Your task to perform on an android device: Open the calendar app, open the side menu, and click the "Day" option Image 0: 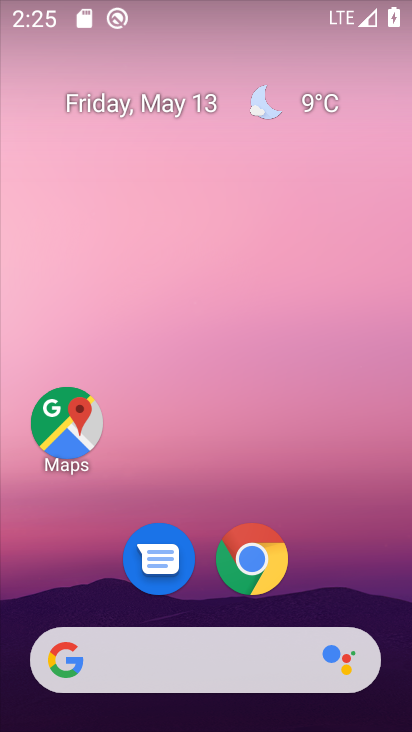
Step 0: drag from (402, 607) to (358, 356)
Your task to perform on an android device: Open the calendar app, open the side menu, and click the "Day" option Image 1: 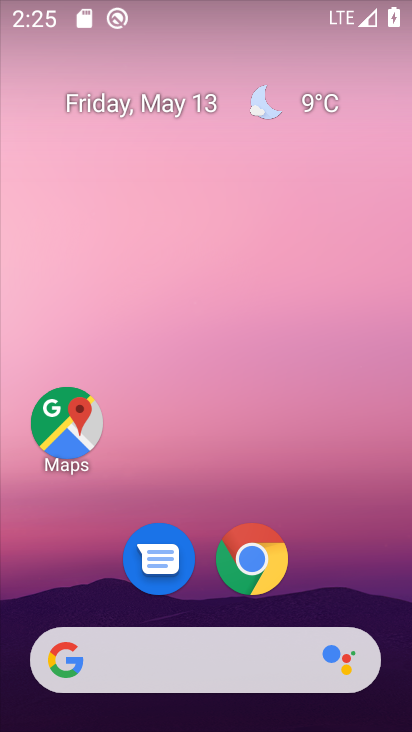
Step 1: drag from (388, 600) to (377, 368)
Your task to perform on an android device: Open the calendar app, open the side menu, and click the "Day" option Image 2: 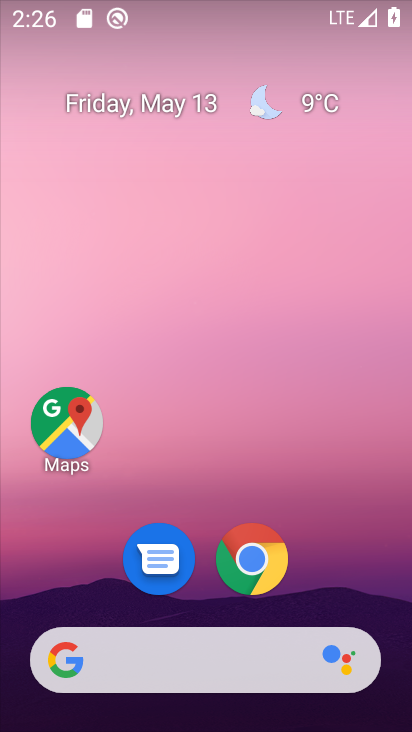
Step 2: drag from (387, 551) to (363, 404)
Your task to perform on an android device: Open the calendar app, open the side menu, and click the "Day" option Image 3: 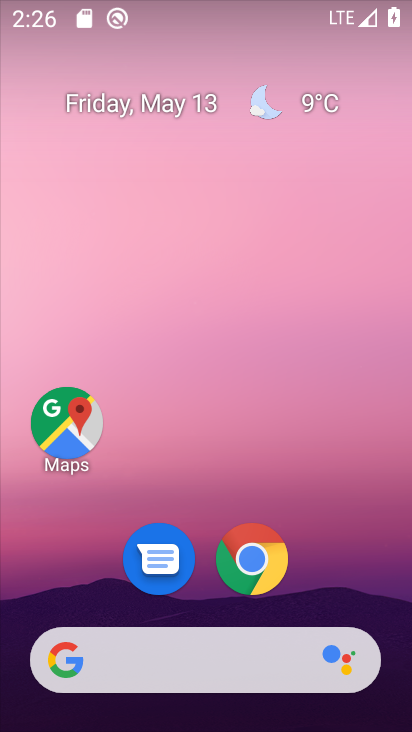
Step 3: click (319, 97)
Your task to perform on an android device: Open the calendar app, open the side menu, and click the "Day" option Image 4: 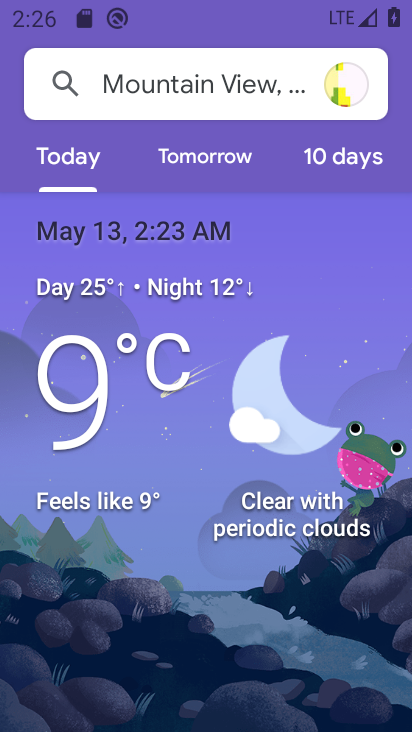
Step 4: press back button
Your task to perform on an android device: Open the calendar app, open the side menu, and click the "Day" option Image 5: 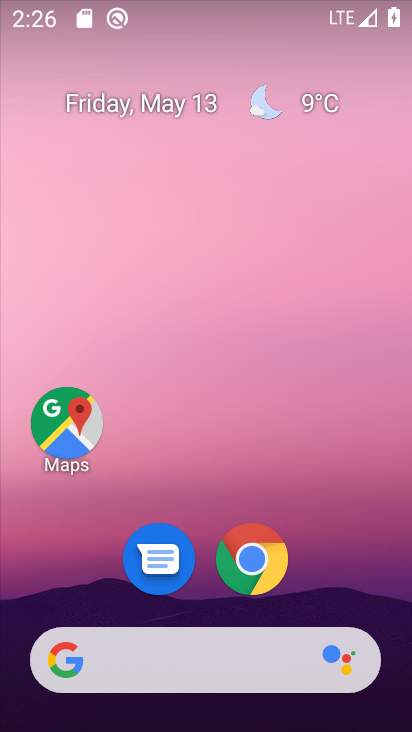
Step 5: drag from (397, 598) to (377, 388)
Your task to perform on an android device: Open the calendar app, open the side menu, and click the "Day" option Image 6: 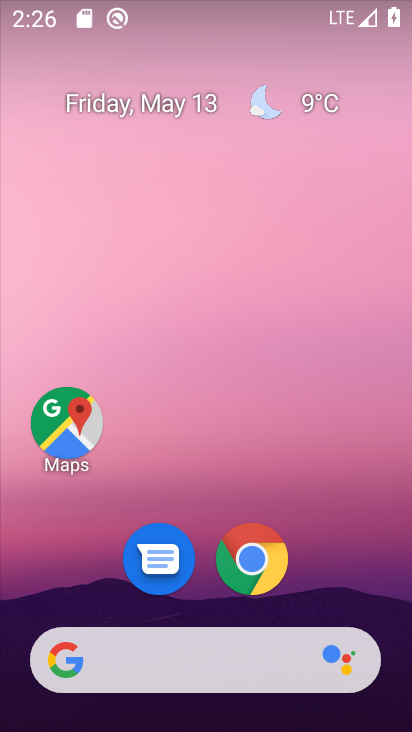
Step 6: drag from (398, 660) to (335, 325)
Your task to perform on an android device: Open the calendar app, open the side menu, and click the "Day" option Image 7: 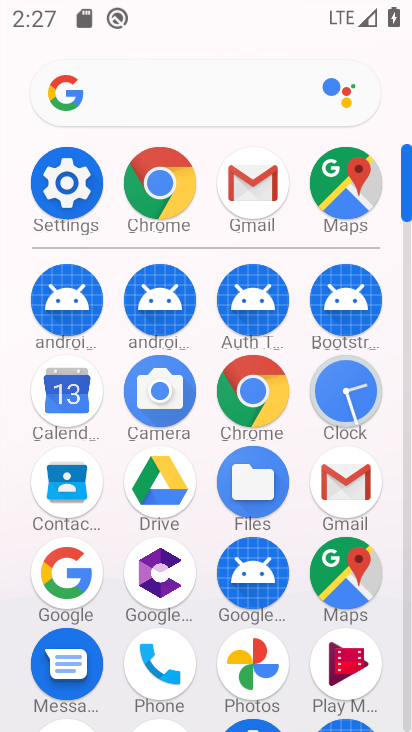
Step 7: click (67, 401)
Your task to perform on an android device: Open the calendar app, open the side menu, and click the "Day" option Image 8: 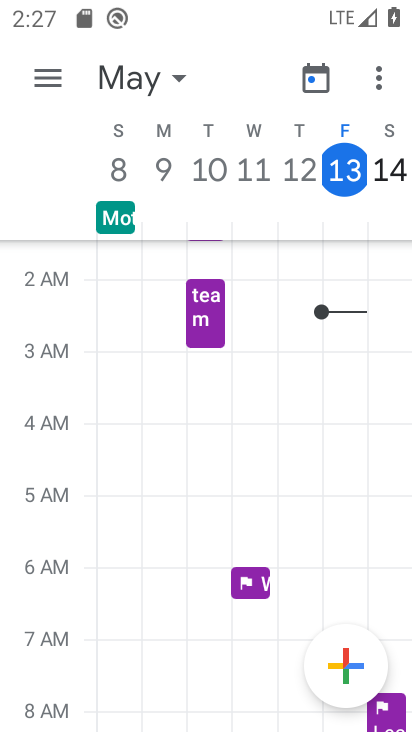
Step 8: click (45, 71)
Your task to perform on an android device: Open the calendar app, open the side menu, and click the "Day" option Image 9: 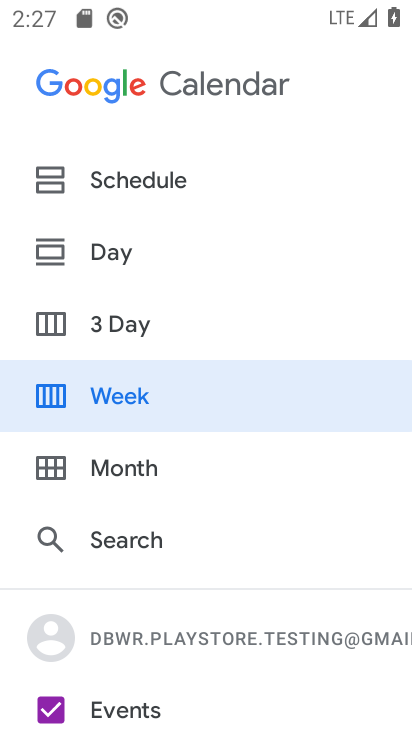
Step 9: click (95, 259)
Your task to perform on an android device: Open the calendar app, open the side menu, and click the "Day" option Image 10: 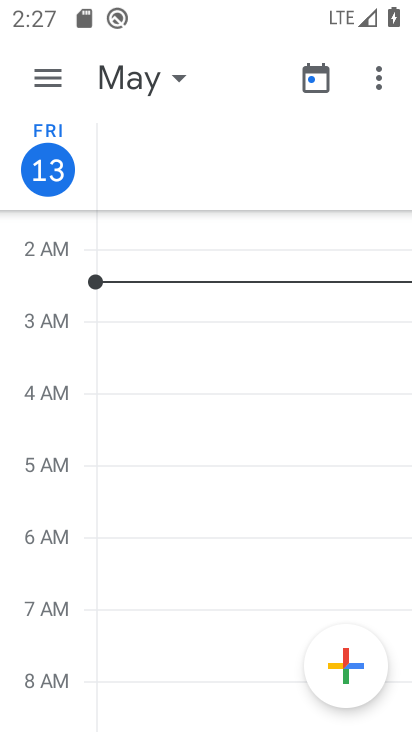
Step 10: task complete